Your task to perform on an android device: Open Google Chrome Image 0: 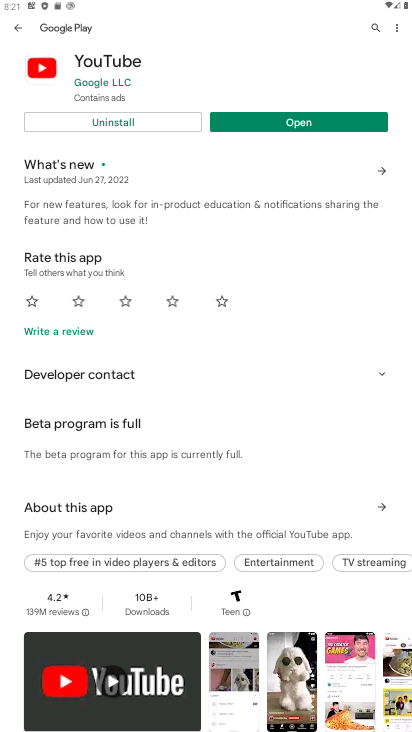
Step 0: press home button
Your task to perform on an android device: Open Google Chrome Image 1: 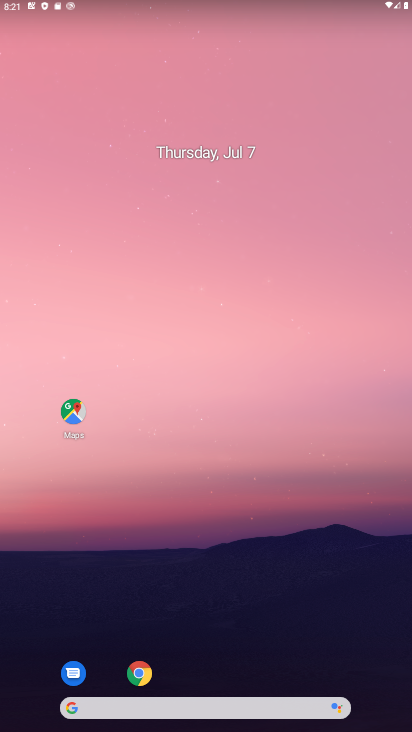
Step 1: drag from (243, 691) to (126, 205)
Your task to perform on an android device: Open Google Chrome Image 2: 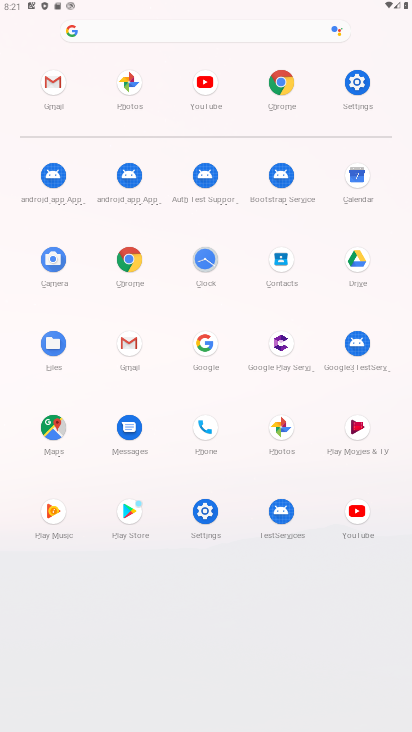
Step 2: click (275, 70)
Your task to perform on an android device: Open Google Chrome Image 3: 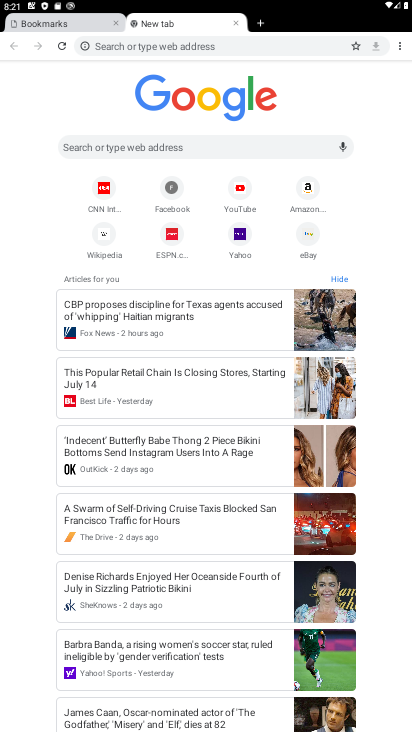
Step 3: task complete